Your task to perform on an android device: check the backup settings in the google photos Image 0: 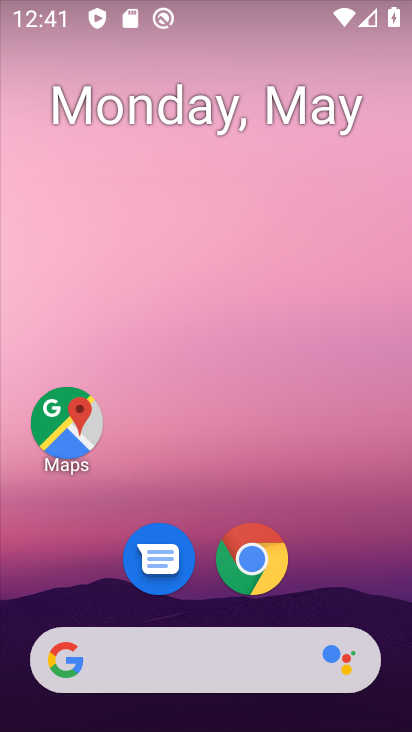
Step 0: drag from (202, 600) to (254, 104)
Your task to perform on an android device: check the backup settings in the google photos Image 1: 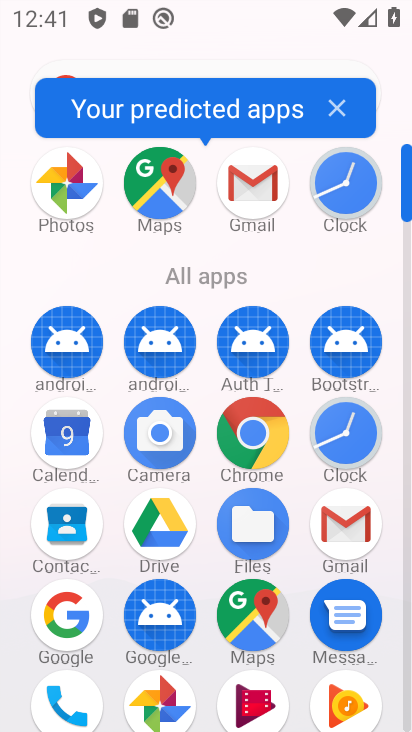
Step 1: drag from (220, 449) to (258, 140)
Your task to perform on an android device: check the backup settings in the google photos Image 2: 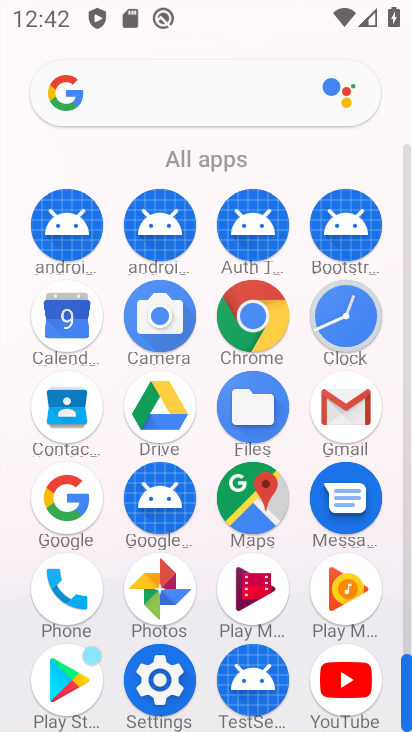
Step 2: click (168, 581)
Your task to perform on an android device: check the backup settings in the google photos Image 3: 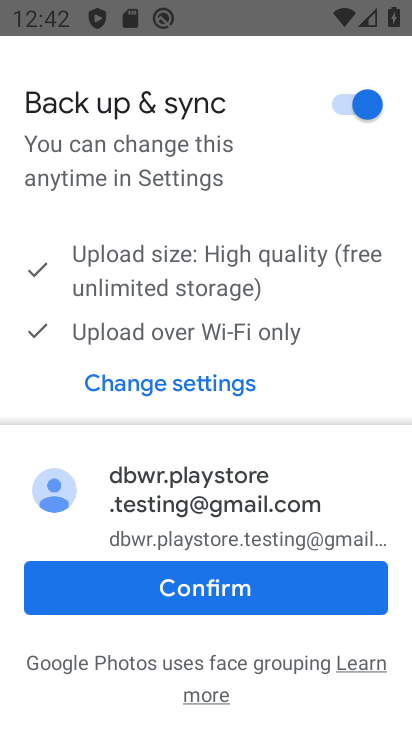
Step 3: click (186, 591)
Your task to perform on an android device: check the backup settings in the google photos Image 4: 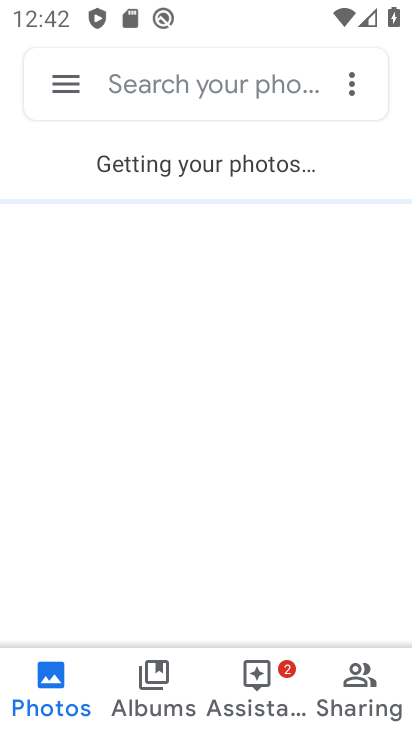
Step 4: click (77, 82)
Your task to perform on an android device: check the backup settings in the google photos Image 5: 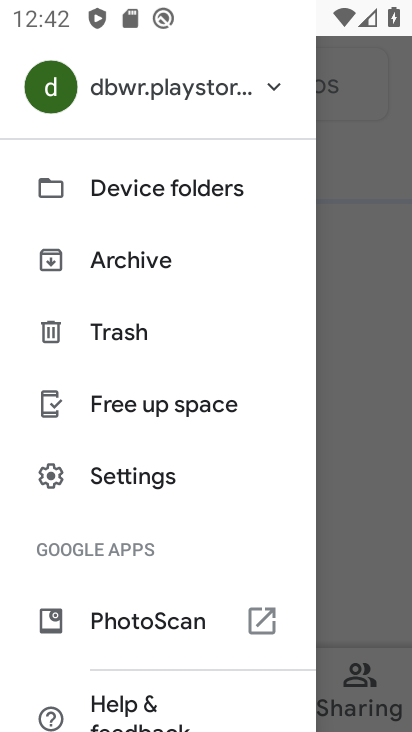
Step 5: click (120, 473)
Your task to perform on an android device: check the backup settings in the google photos Image 6: 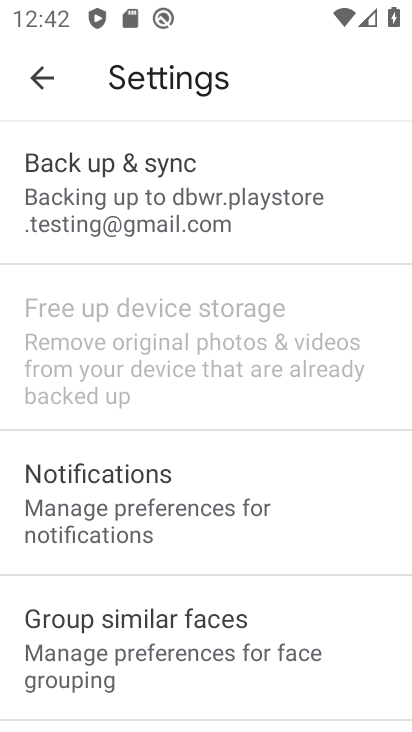
Step 6: click (202, 209)
Your task to perform on an android device: check the backup settings in the google photos Image 7: 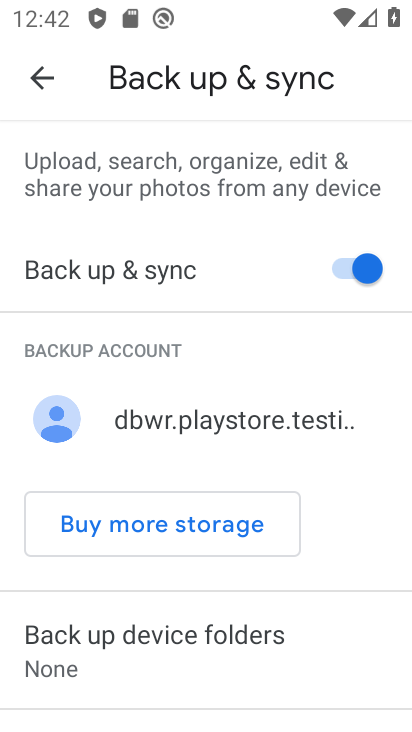
Step 7: task complete